Your task to perform on an android device: turn vacation reply on in the gmail app Image 0: 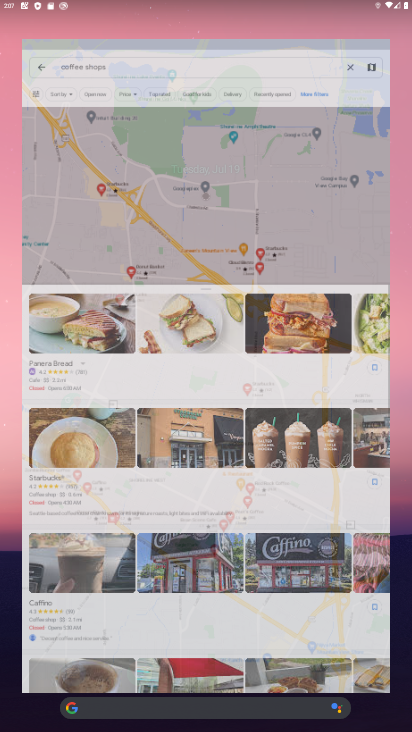
Step 0: press home button
Your task to perform on an android device: turn vacation reply on in the gmail app Image 1: 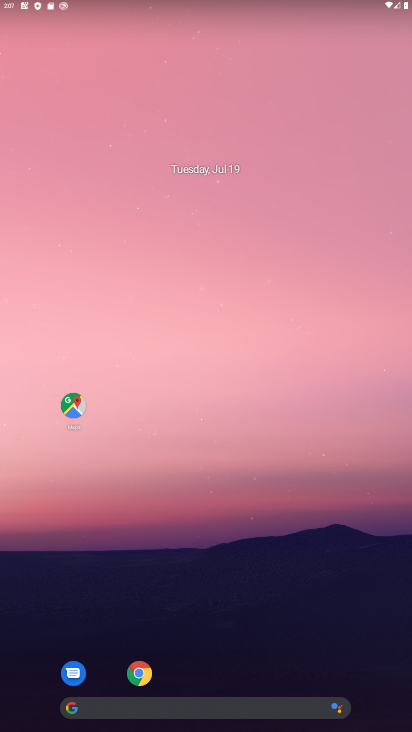
Step 1: drag from (193, 709) to (250, 185)
Your task to perform on an android device: turn vacation reply on in the gmail app Image 2: 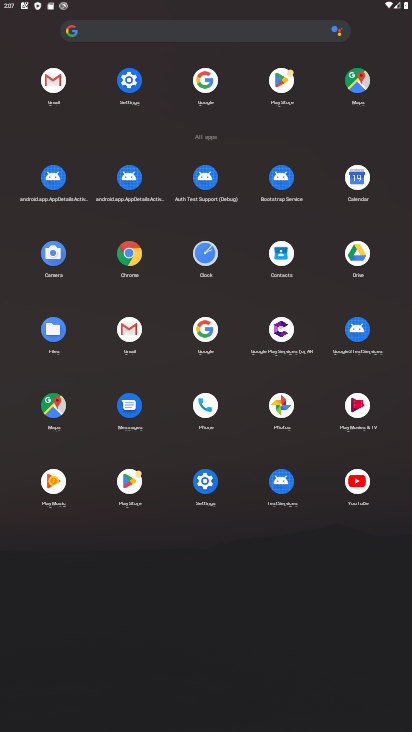
Step 2: click (51, 84)
Your task to perform on an android device: turn vacation reply on in the gmail app Image 3: 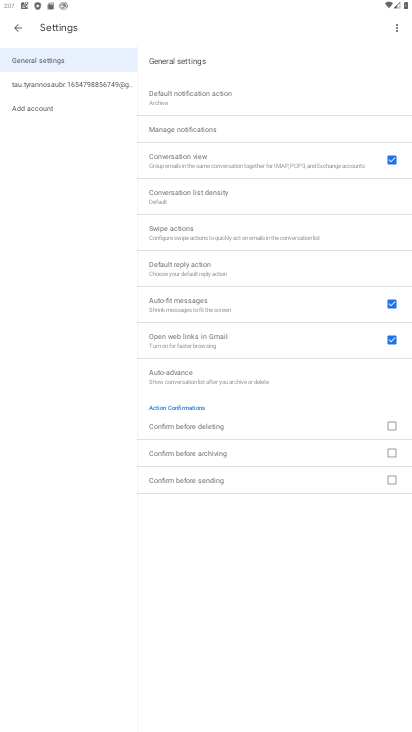
Step 3: click (57, 82)
Your task to perform on an android device: turn vacation reply on in the gmail app Image 4: 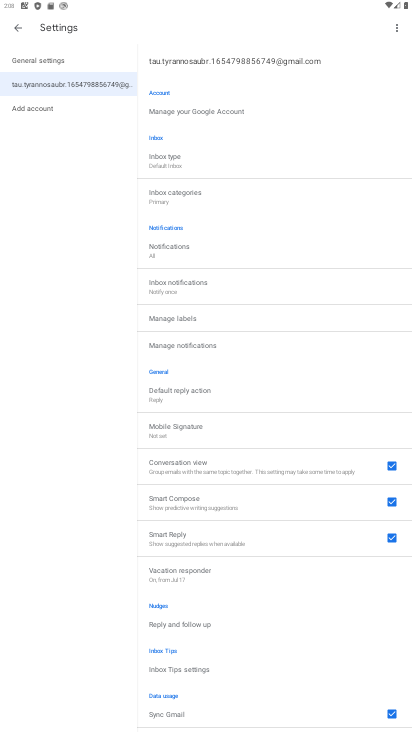
Step 4: click (199, 572)
Your task to perform on an android device: turn vacation reply on in the gmail app Image 5: 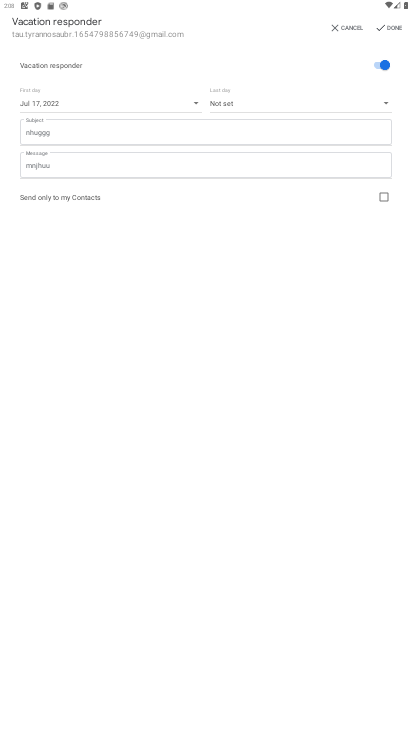
Step 5: task complete